Your task to perform on an android device: Open the map Image 0: 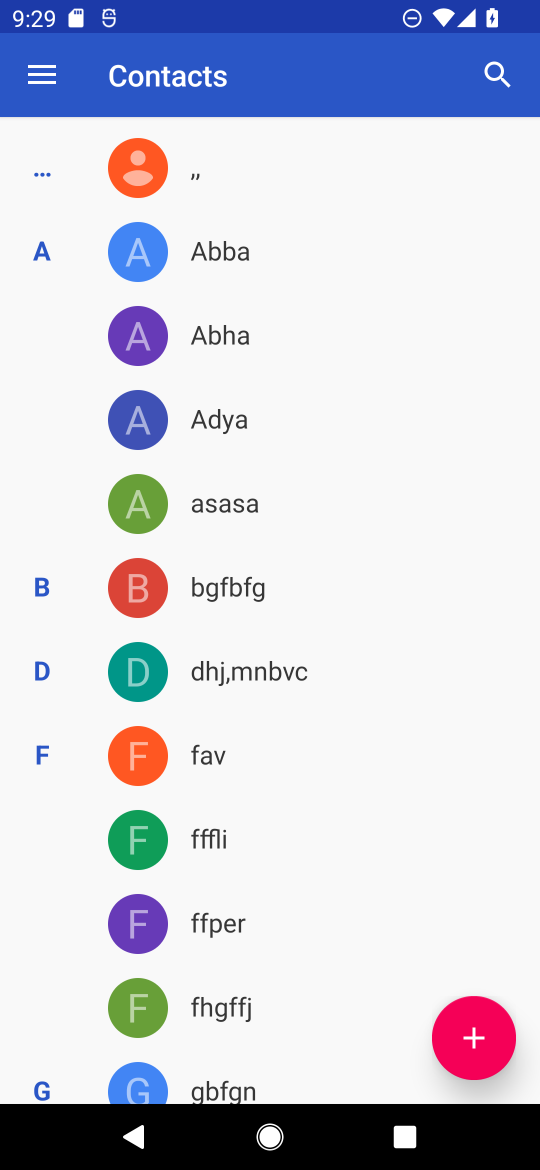
Step 0: press home button
Your task to perform on an android device: Open the map Image 1: 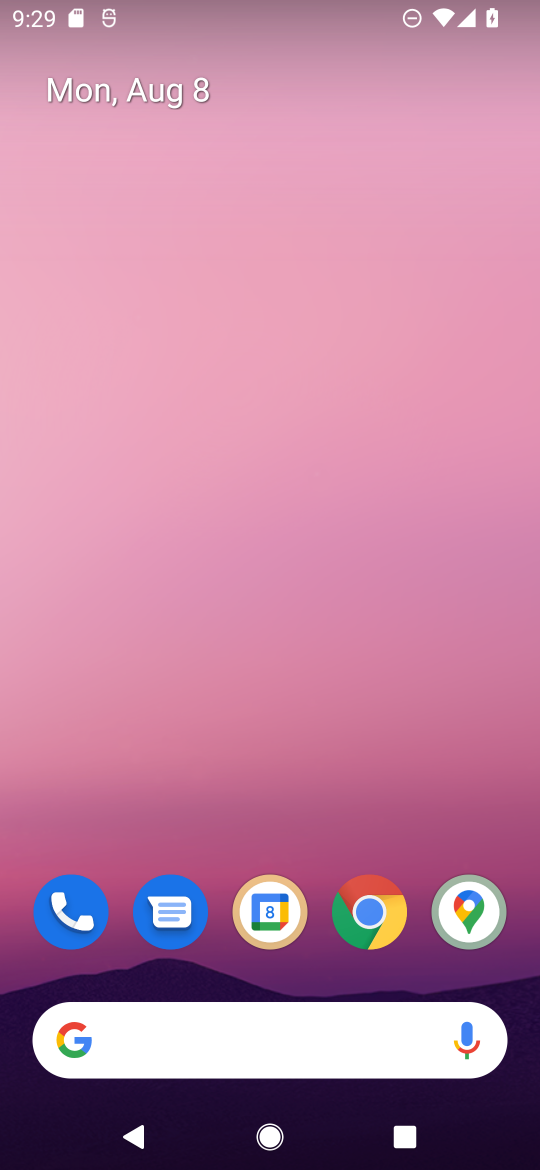
Step 1: drag from (513, 962) to (395, 244)
Your task to perform on an android device: Open the map Image 2: 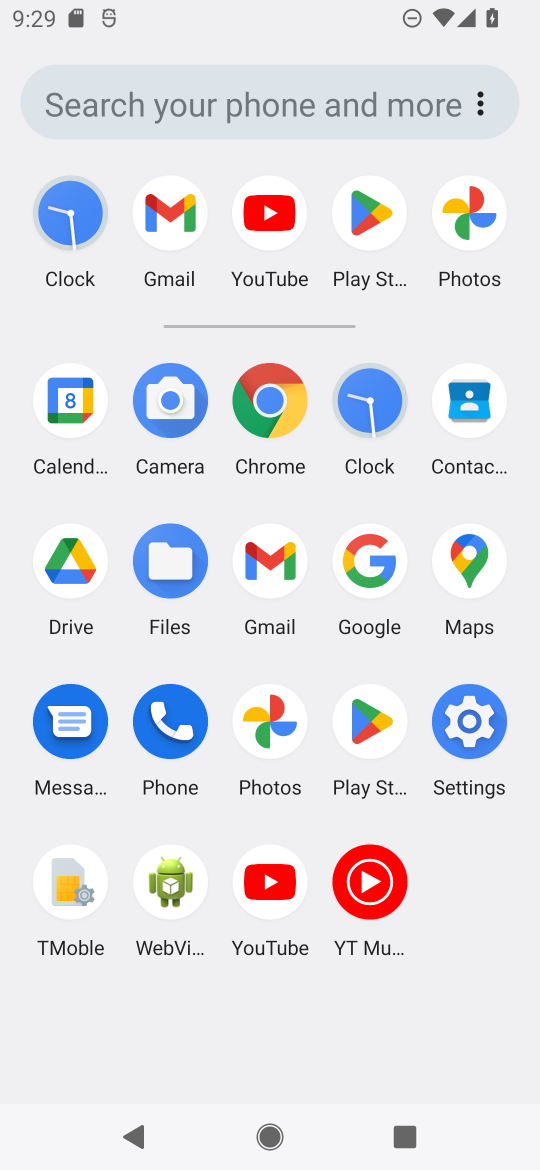
Step 2: click (454, 550)
Your task to perform on an android device: Open the map Image 3: 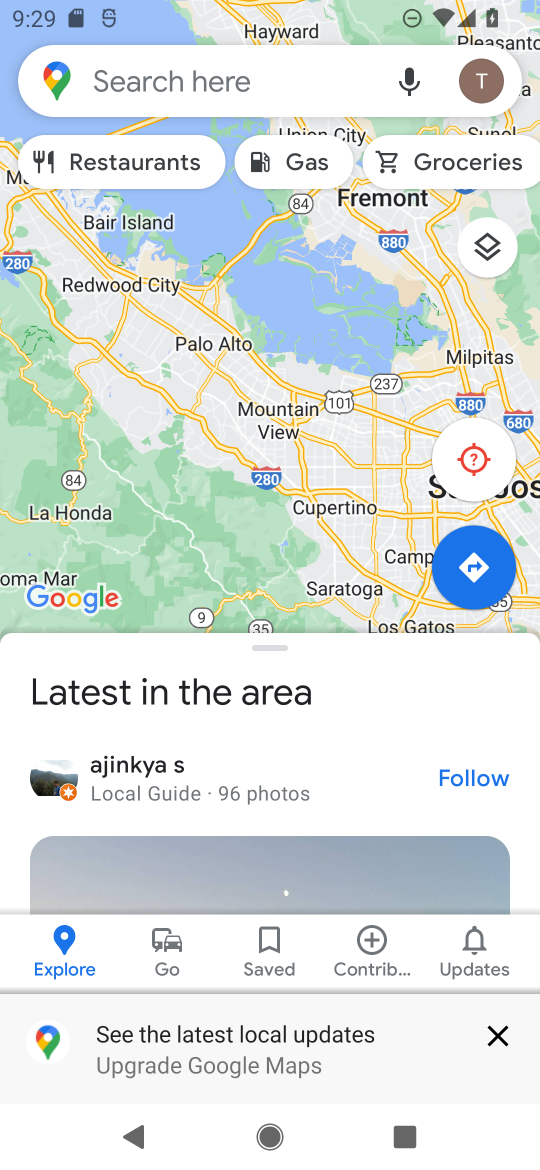
Step 3: task complete